Your task to perform on an android device: change alarm snooze length Image 0: 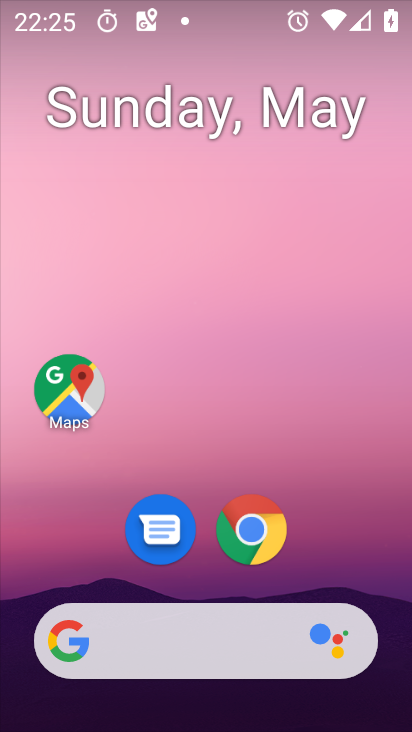
Step 0: drag from (363, 602) to (401, 15)
Your task to perform on an android device: change alarm snooze length Image 1: 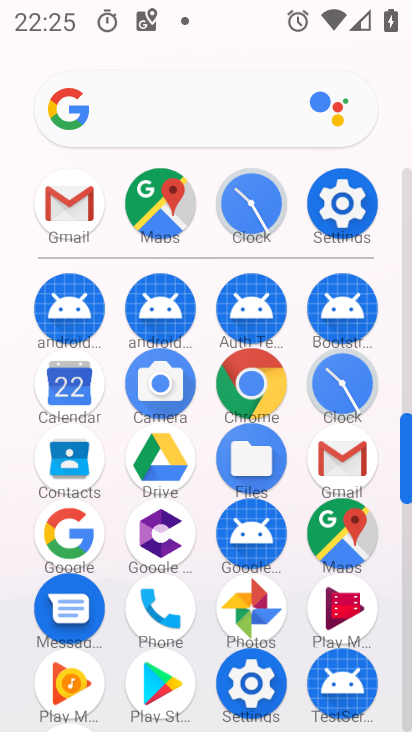
Step 1: click (250, 203)
Your task to perform on an android device: change alarm snooze length Image 2: 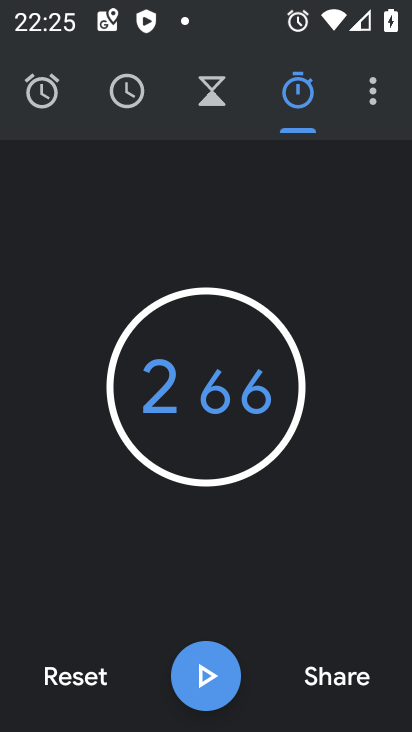
Step 2: click (370, 92)
Your task to perform on an android device: change alarm snooze length Image 3: 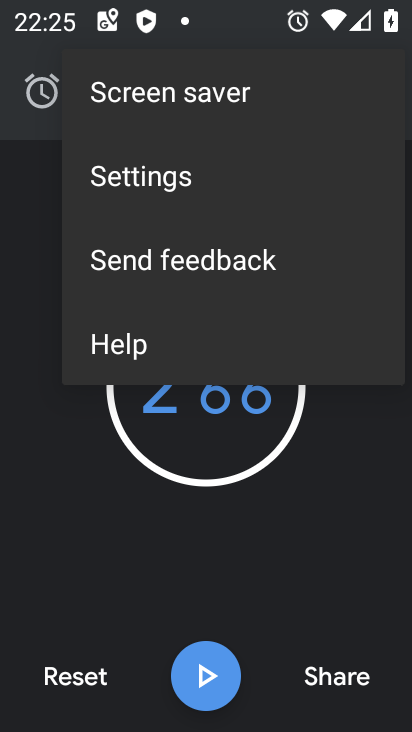
Step 3: click (153, 190)
Your task to perform on an android device: change alarm snooze length Image 4: 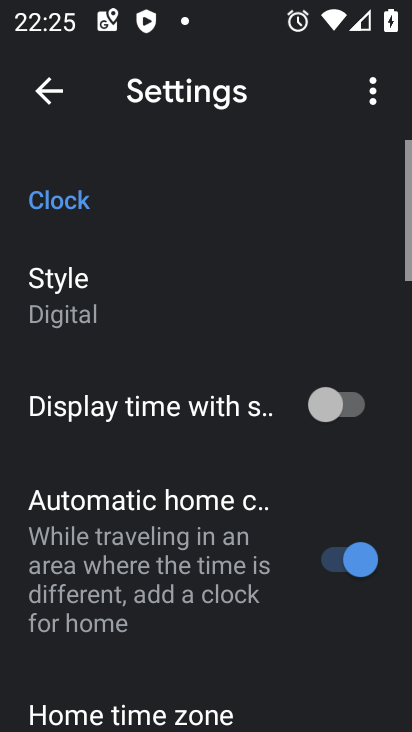
Step 4: drag from (125, 566) to (167, 170)
Your task to perform on an android device: change alarm snooze length Image 5: 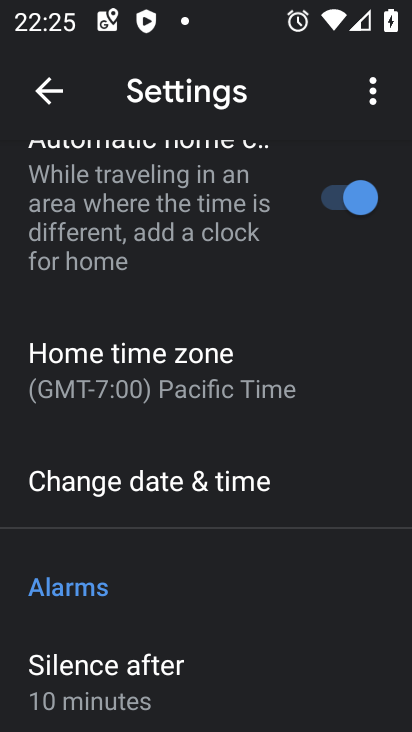
Step 5: drag from (144, 518) to (172, 134)
Your task to perform on an android device: change alarm snooze length Image 6: 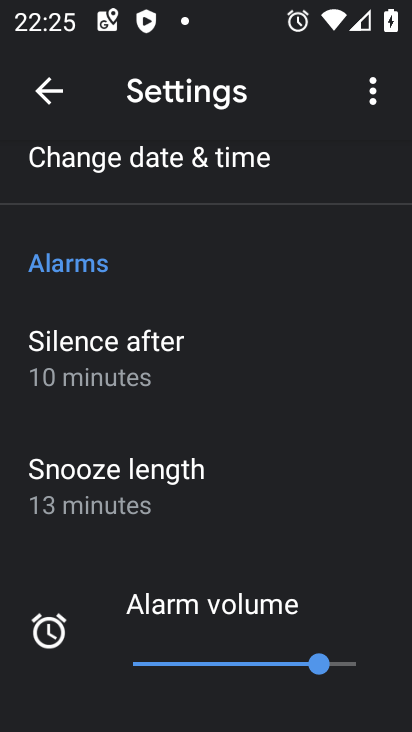
Step 6: click (109, 496)
Your task to perform on an android device: change alarm snooze length Image 7: 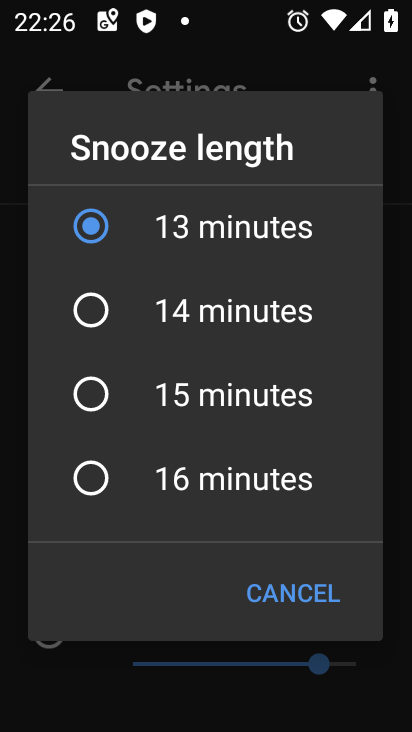
Step 7: click (102, 397)
Your task to perform on an android device: change alarm snooze length Image 8: 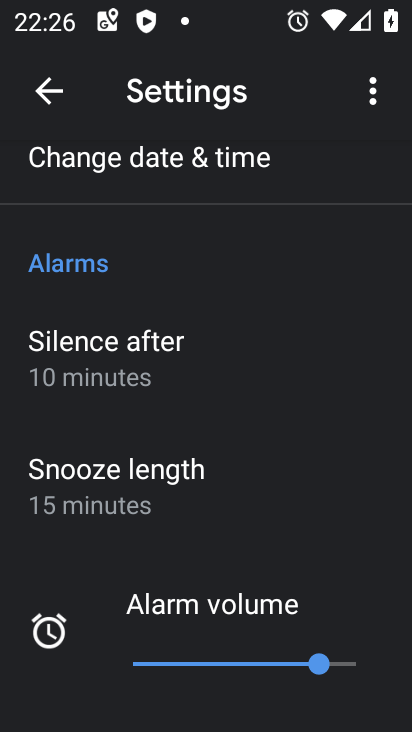
Step 8: click (95, 485)
Your task to perform on an android device: change alarm snooze length Image 9: 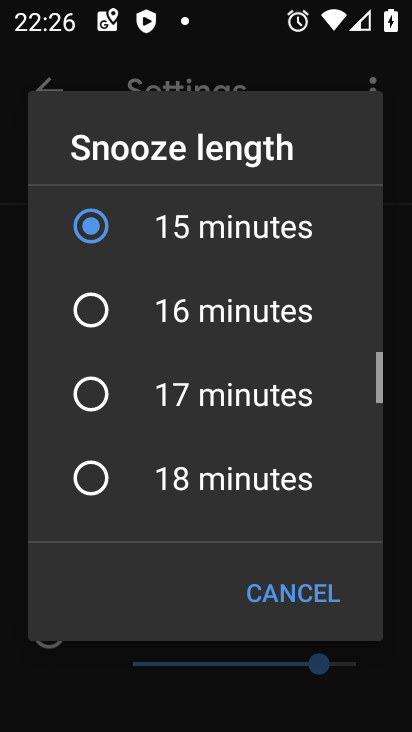
Step 9: click (93, 293)
Your task to perform on an android device: change alarm snooze length Image 10: 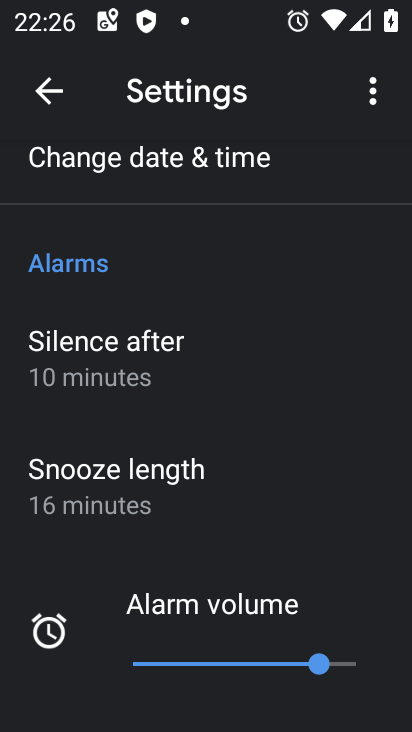
Step 10: task complete